Your task to perform on an android device: Find coffee shops on Maps Image 0: 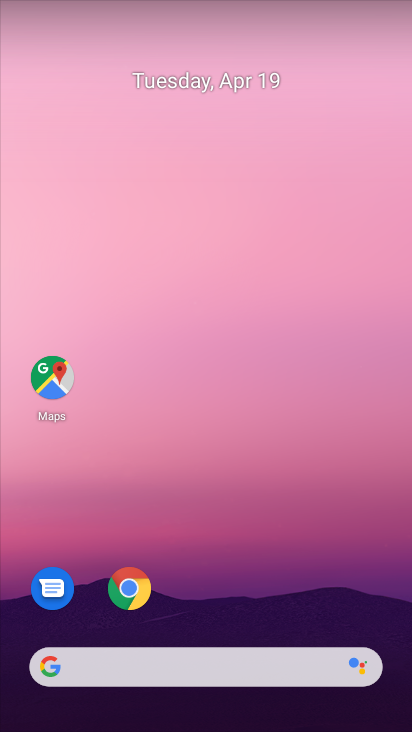
Step 0: click (47, 374)
Your task to perform on an android device: Find coffee shops on Maps Image 1: 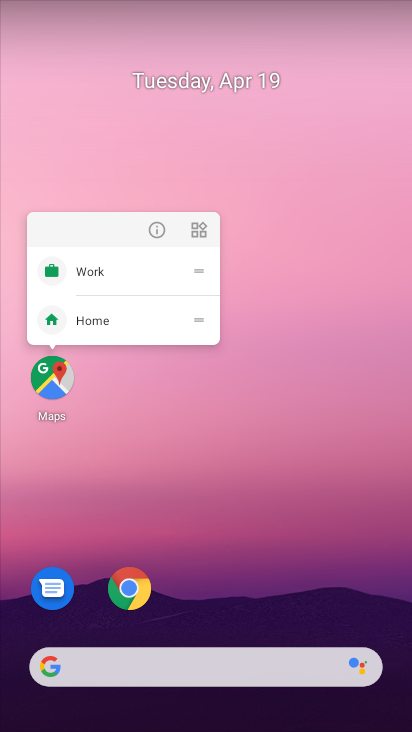
Step 1: click (54, 376)
Your task to perform on an android device: Find coffee shops on Maps Image 2: 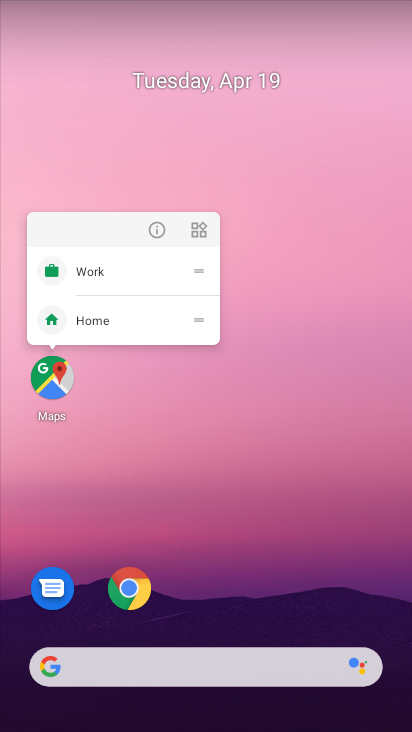
Step 2: click (49, 374)
Your task to perform on an android device: Find coffee shops on Maps Image 3: 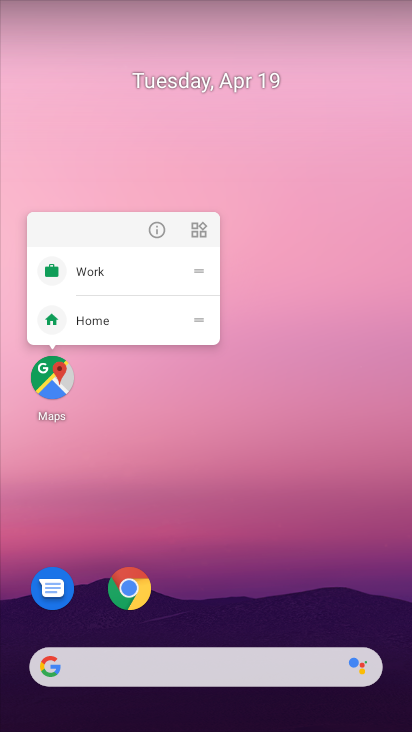
Step 3: click (97, 393)
Your task to perform on an android device: Find coffee shops on Maps Image 4: 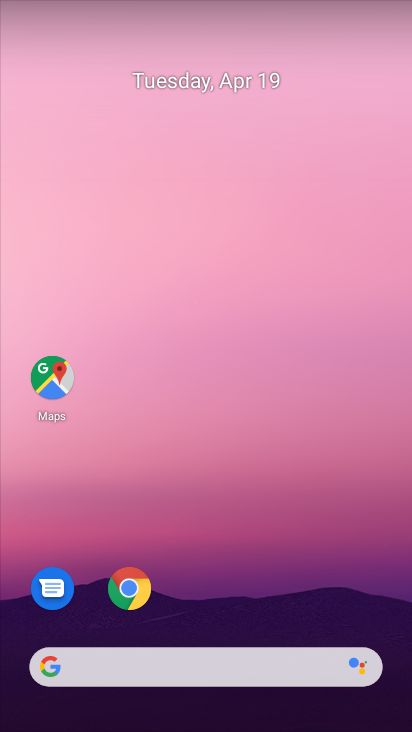
Step 4: click (51, 375)
Your task to perform on an android device: Find coffee shops on Maps Image 5: 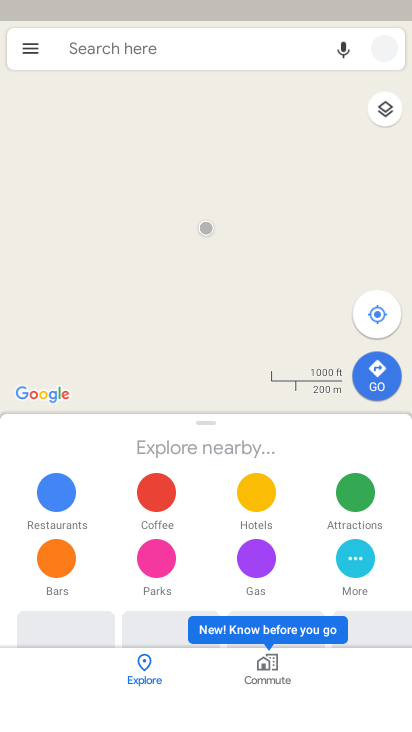
Step 5: click (106, 39)
Your task to perform on an android device: Find coffee shops on Maps Image 6: 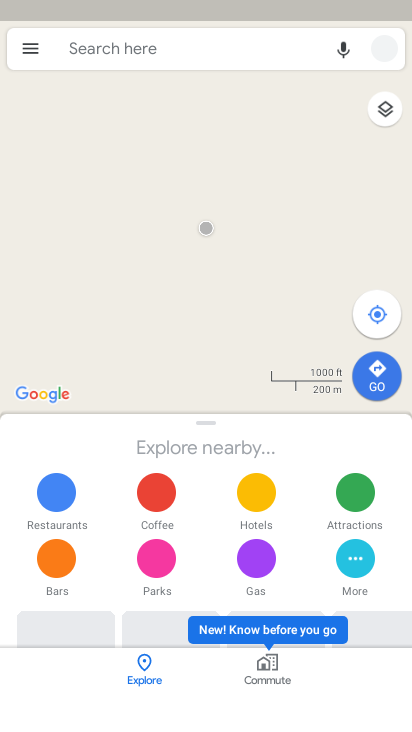
Step 6: click (92, 47)
Your task to perform on an android device: Find coffee shops on Maps Image 7: 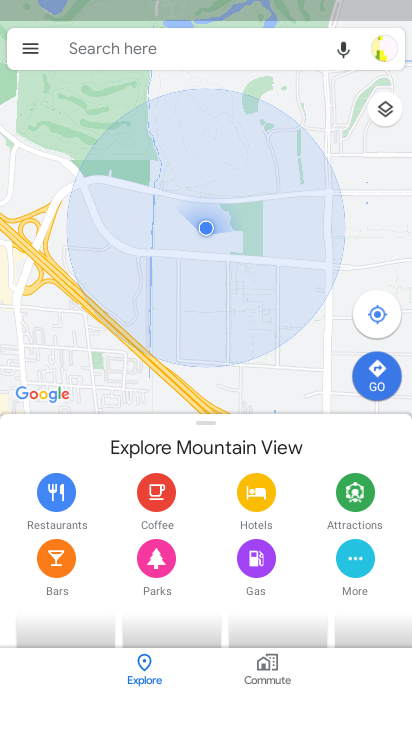
Step 7: click (111, 39)
Your task to perform on an android device: Find coffee shops on Maps Image 8: 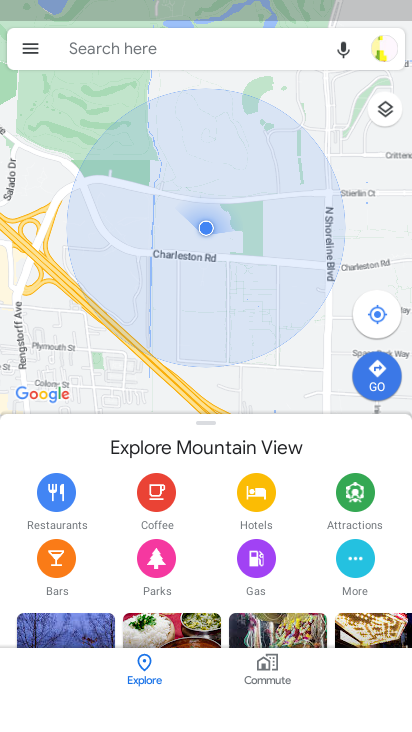
Step 8: click (98, 47)
Your task to perform on an android device: Find coffee shops on Maps Image 9: 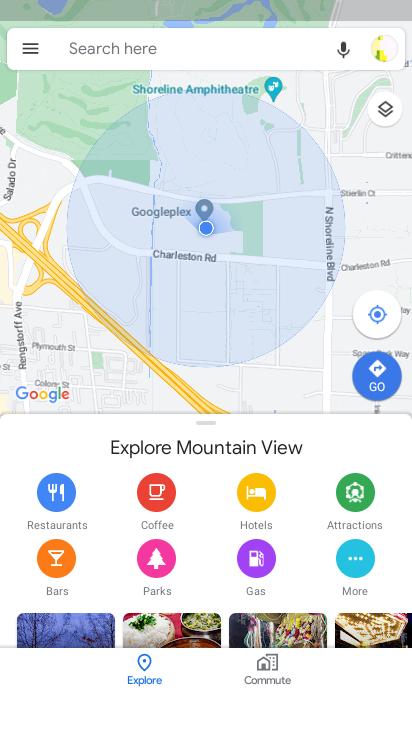
Step 9: click (115, 42)
Your task to perform on an android device: Find coffee shops on Maps Image 10: 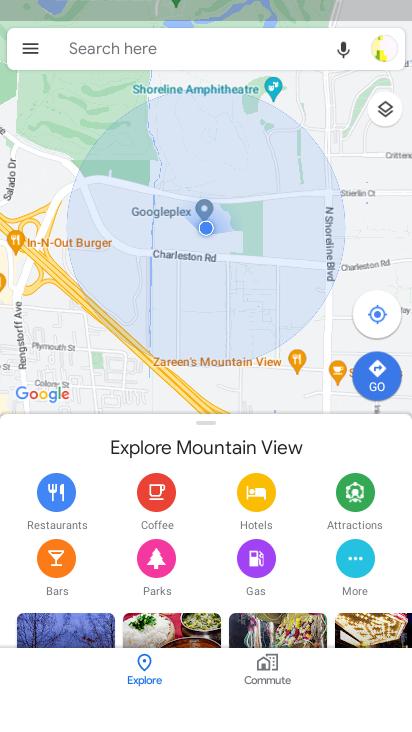
Step 10: click (115, 42)
Your task to perform on an android device: Find coffee shops on Maps Image 11: 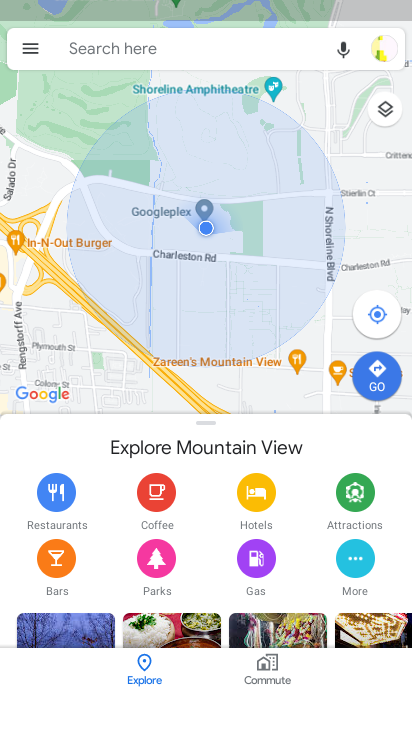
Step 11: click (106, 46)
Your task to perform on an android device: Find coffee shops on Maps Image 12: 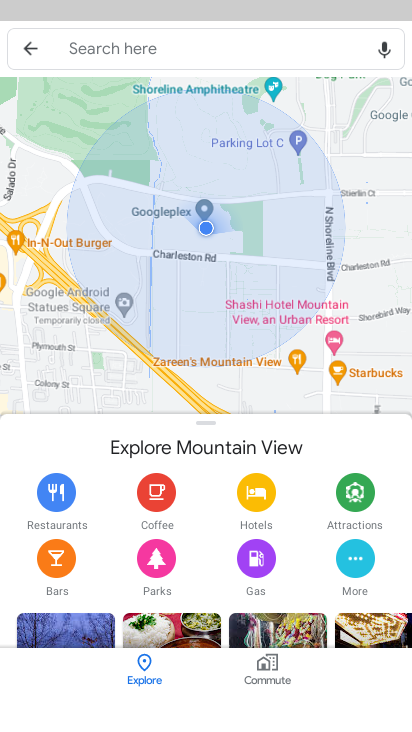
Step 12: click (105, 41)
Your task to perform on an android device: Find coffee shops on Maps Image 13: 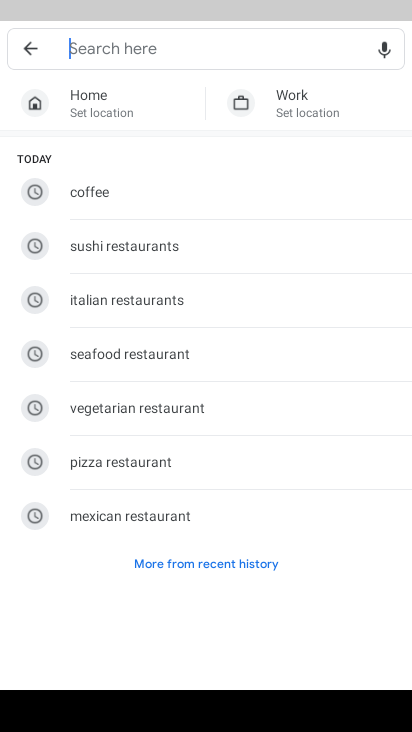
Step 13: click (120, 190)
Your task to perform on an android device: Find coffee shops on Maps Image 14: 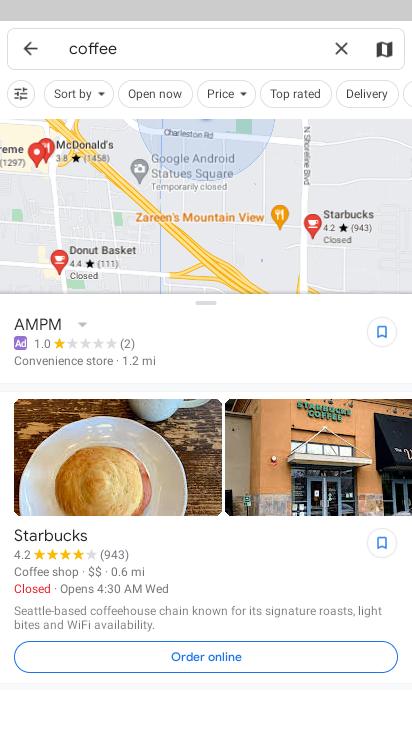
Step 14: drag from (181, 424) to (201, 215)
Your task to perform on an android device: Find coffee shops on Maps Image 15: 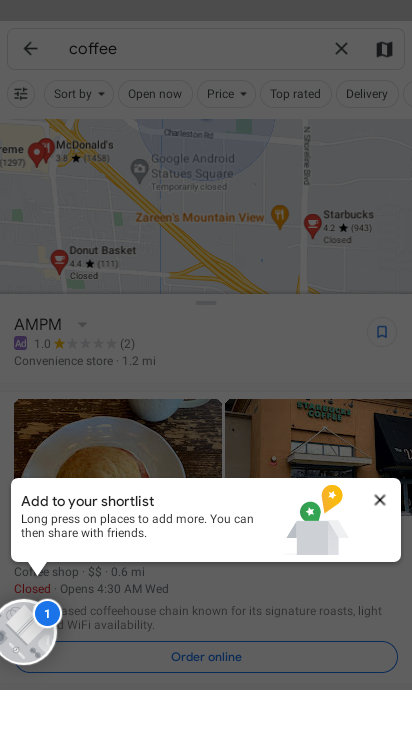
Step 15: click (380, 498)
Your task to perform on an android device: Find coffee shops on Maps Image 16: 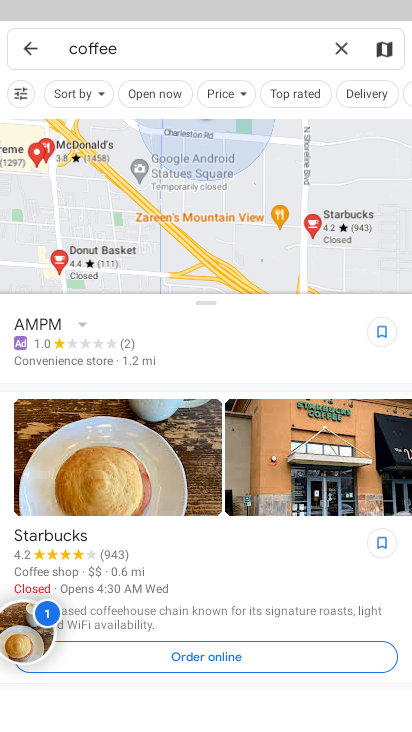
Step 16: task complete